Your task to perform on an android device: change timer sound Image 0: 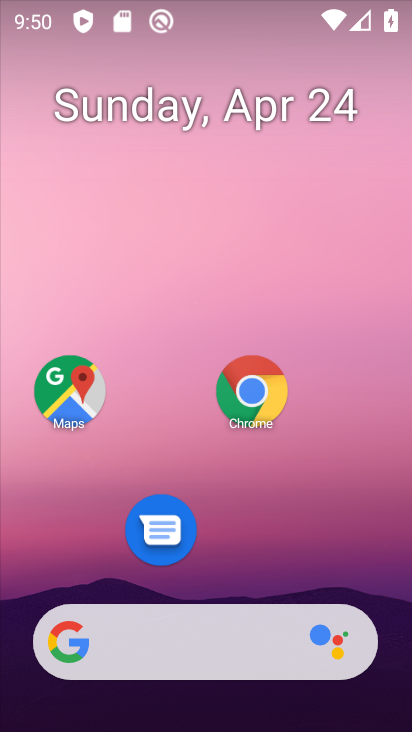
Step 0: drag from (228, 592) to (300, 64)
Your task to perform on an android device: change timer sound Image 1: 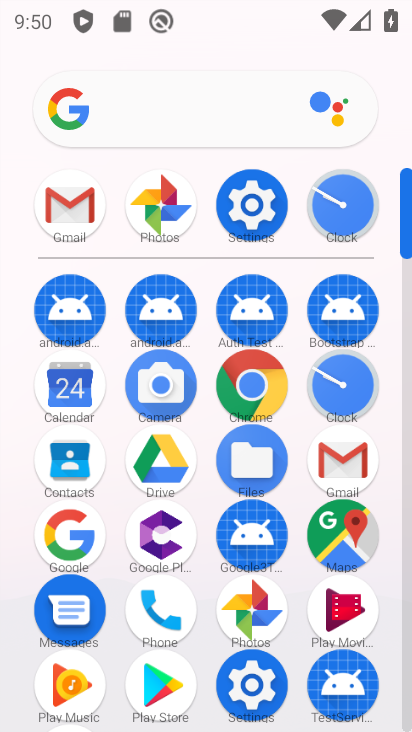
Step 1: click (342, 387)
Your task to perform on an android device: change timer sound Image 2: 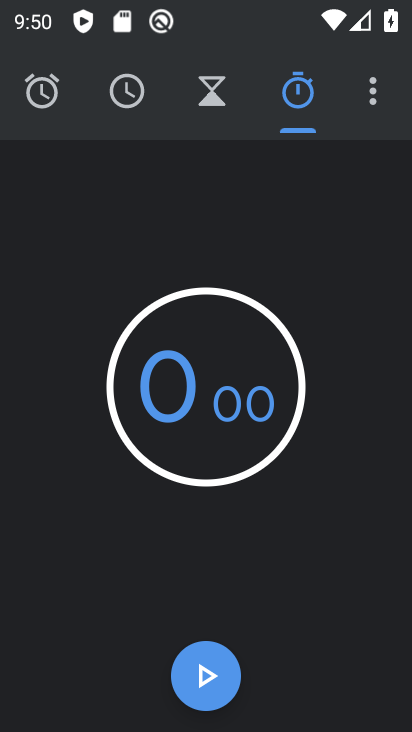
Step 2: click (367, 87)
Your task to perform on an android device: change timer sound Image 3: 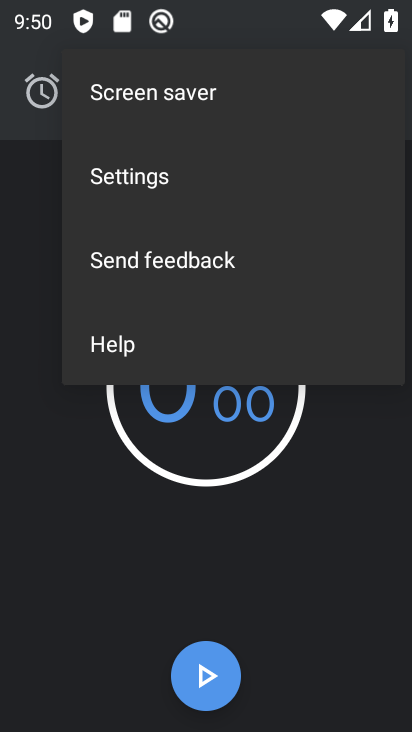
Step 3: click (225, 195)
Your task to perform on an android device: change timer sound Image 4: 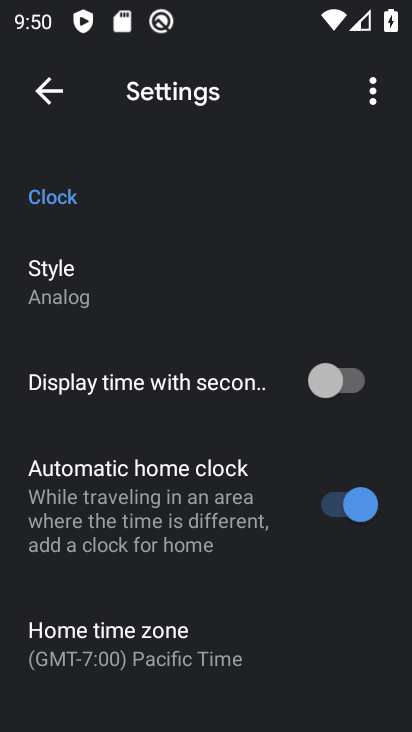
Step 4: drag from (160, 551) to (265, 43)
Your task to perform on an android device: change timer sound Image 5: 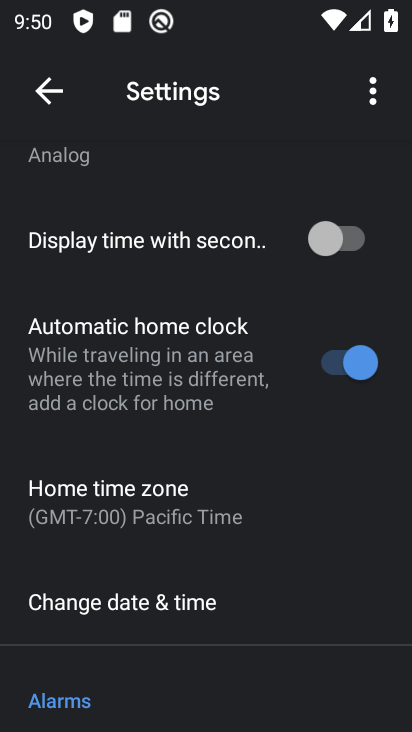
Step 5: drag from (188, 507) to (233, 189)
Your task to perform on an android device: change timer sound Image 6: 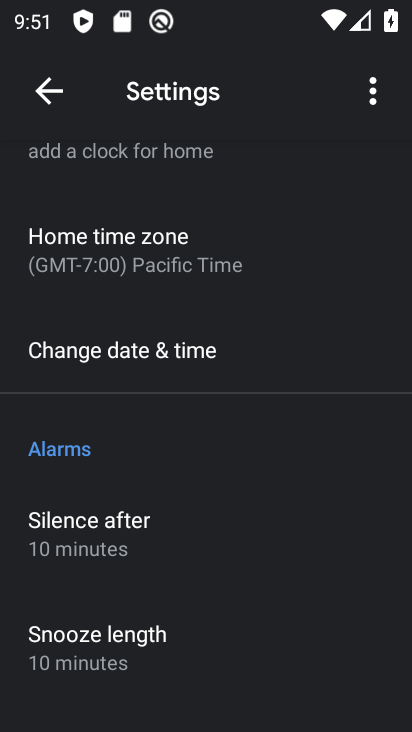
Step 6: drag from (150, 654) to (196, 343)
Your task to perform on an android device: change timer sound Image 7: 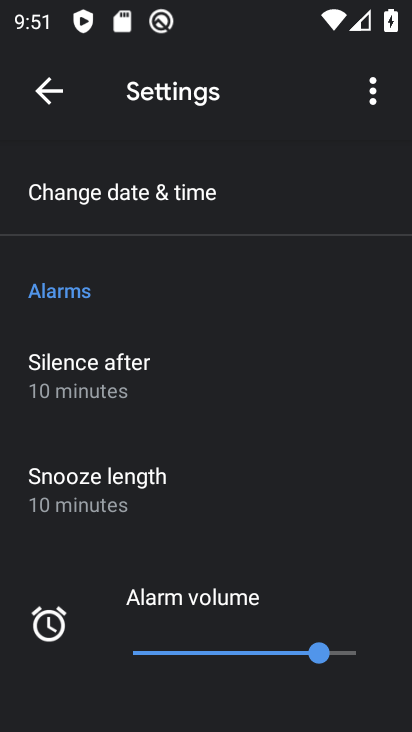
Step 7: drag from (140, 535) to (173, 149)
Your task to perform on an android device: change timer sound Image 8: 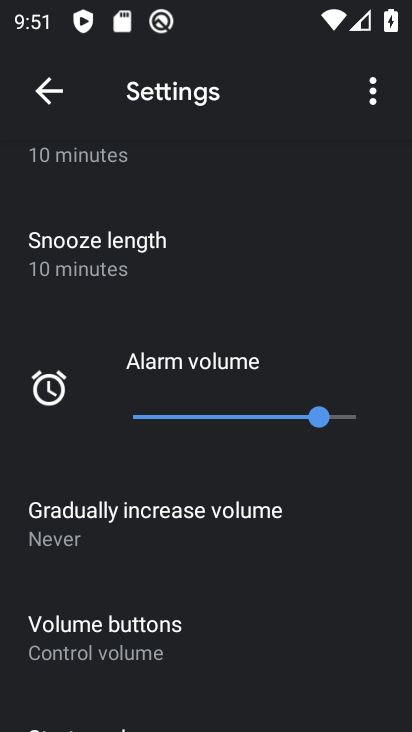
Step 8: drag from (201, 619) to (242, 200)
Your task to perform on an android device: change timer sound Image 9: 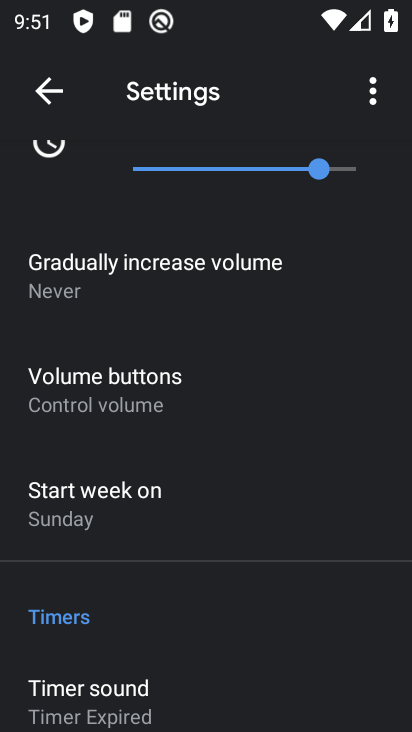
Step 9: click (91, 684)
Your task to perform on an android device: change timer sound Image 10: 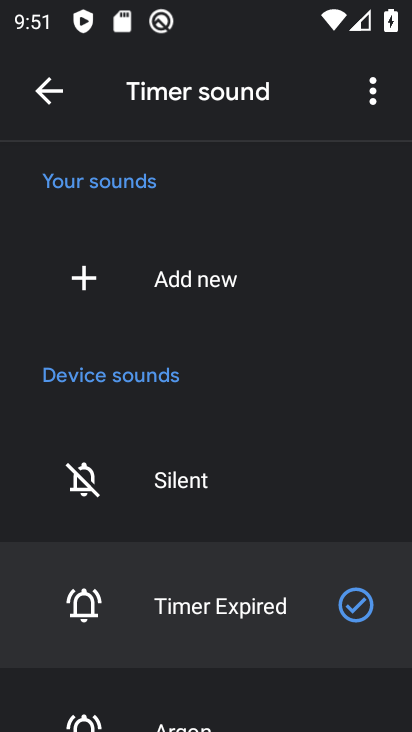
Step 10: click (188, 718)
Your task to perform on an android device: change timer sound Image 11: 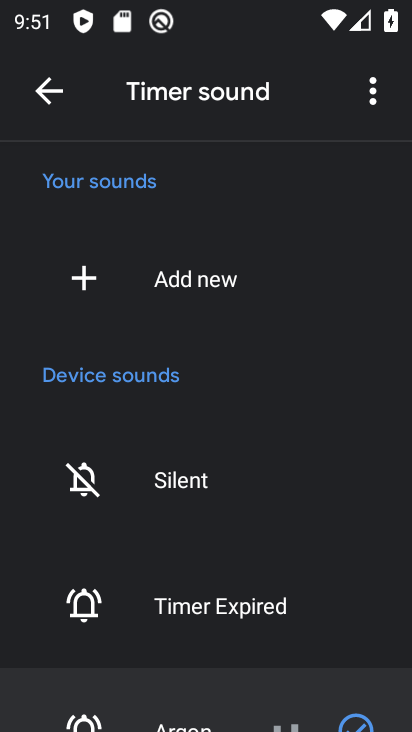
Step 11: task complete